Your task to perform on an android device: turn on notifications settings in the gmail app Image 0: 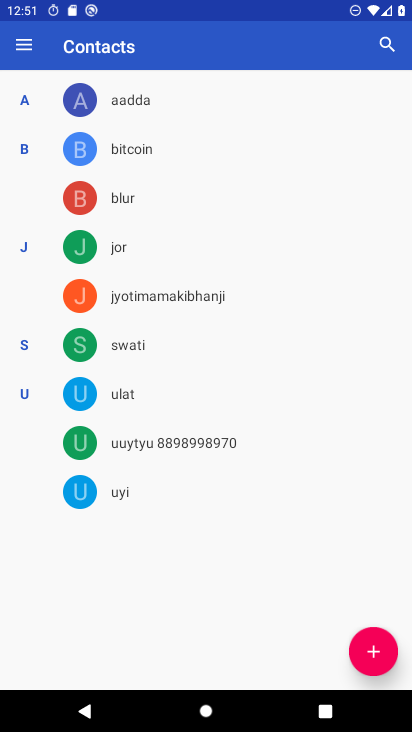
Step 0: press home button
Your task to perform on an android device: turn on notifications settings in the gmail app Image 1: 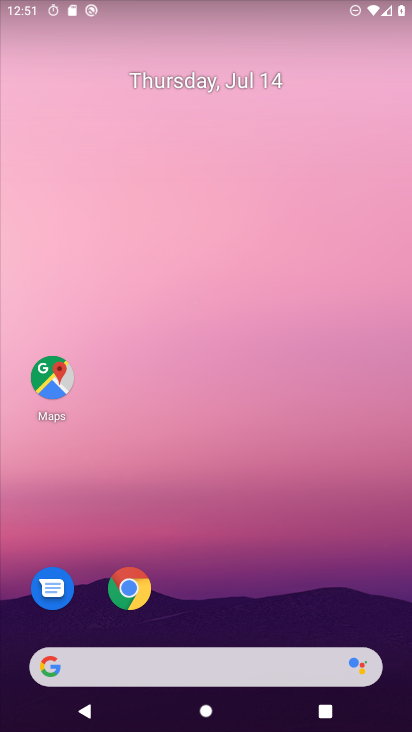
Step 1: drag from (183, 666) to (343, 118)
Your task to perform on an android device: turn on notifications settings in the gmail app Image 2: 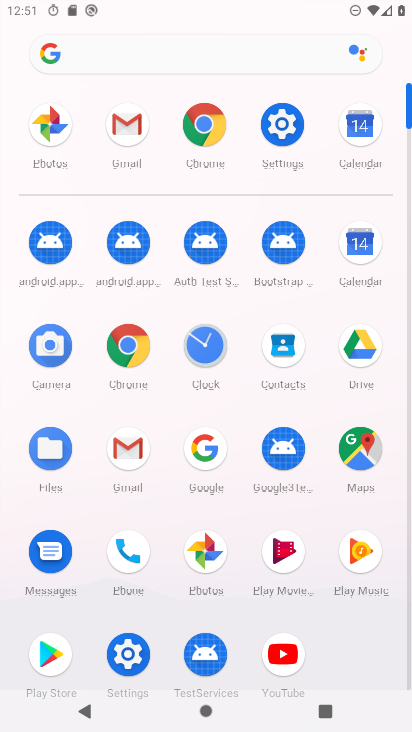
Step 2: click (129, 457)
Your task to perform on an android device: turn on notifications settings in the gmail app Image 3: 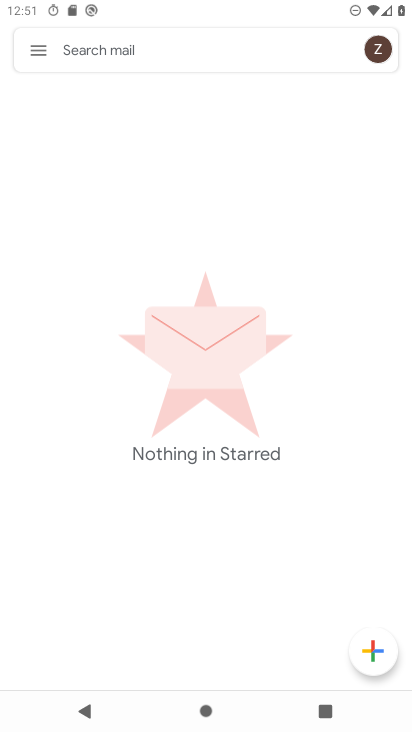
Step 3: click (41, 51)
Your task to perform on an android device: turn on notifications settings in the gmail app Image 4: 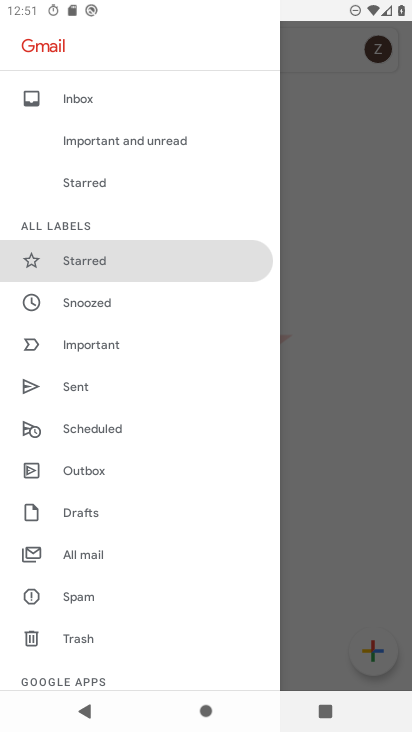
Step 4: drag from (153, 619) to (269, 163)
Your task to perform on an android device: turn on notifications settings in the gmail app Image 5: 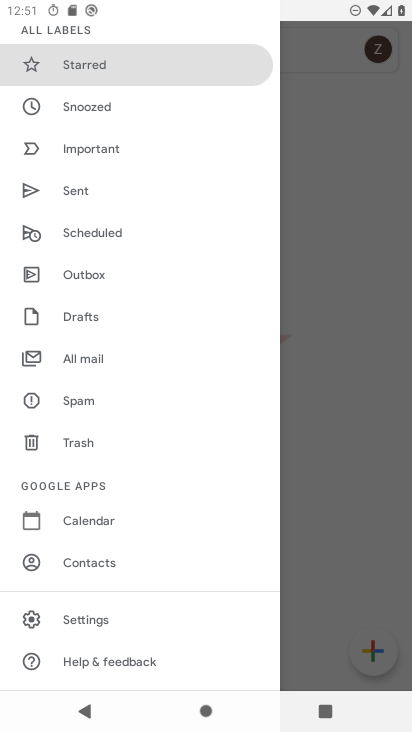
Step 5: click (103, 620)
Your task to perform on an android device: turn on notifications settings in the gmail app Image 6: 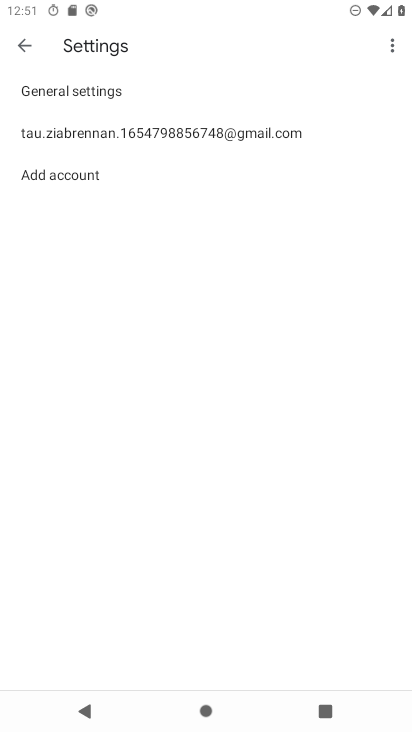
Step 6: click (175, 128)
Your task to perform on an android device: turn on notifications settings in the gmail app Image 7: 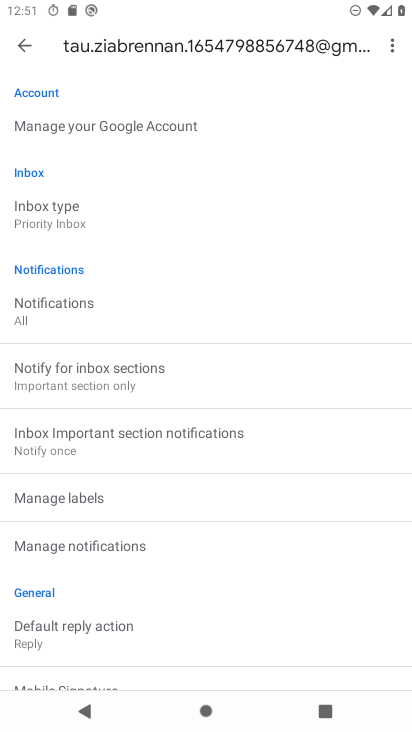
Step 7: click (74, 320)
Your task to perform on an android device: turn on notifications settings in the gmail app Image 8: 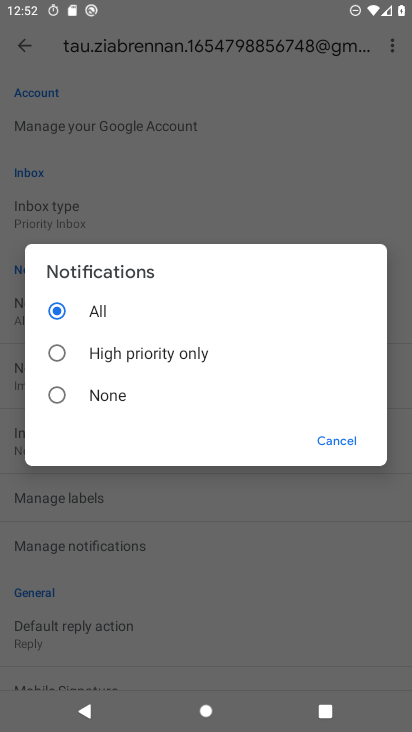
Step 8: task complete